Your task to perform on an android device: Clear the shopping cart on bestbuy. Image 0: 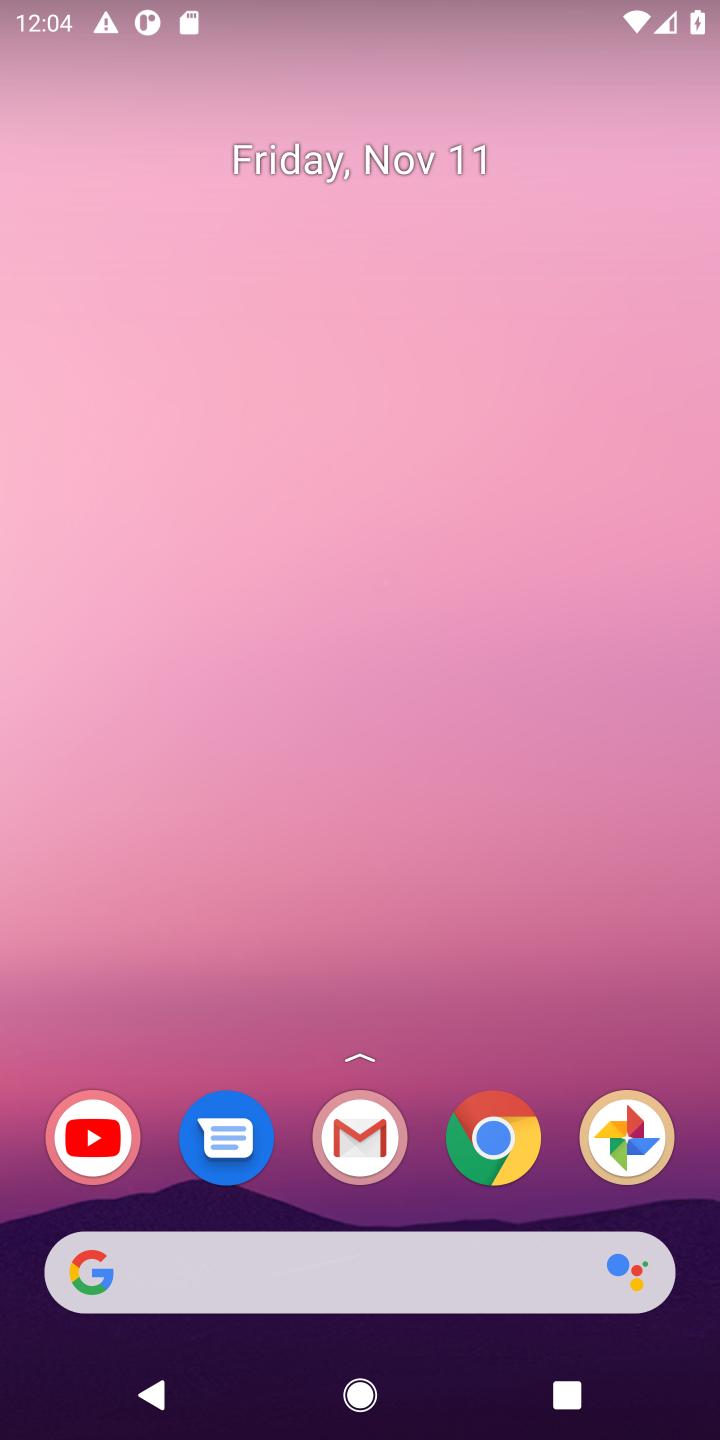
Step 0: click (485, 1124)
Your task to perform on an android device: Clear the shopping cart on bestbuy. Image 1: 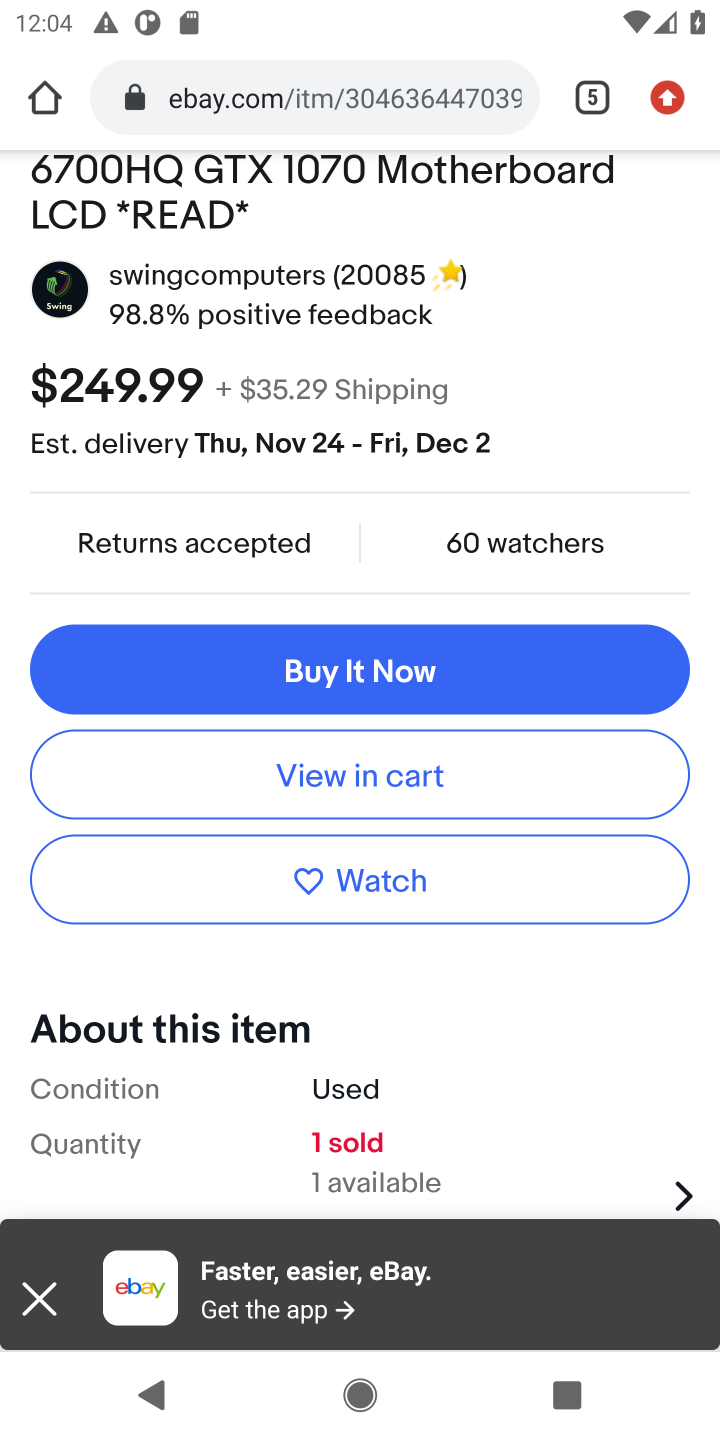
Step 1: click (580, 102)
Your task to perform on an android device: Clear the shopping cart on bestbuy. Image 2: 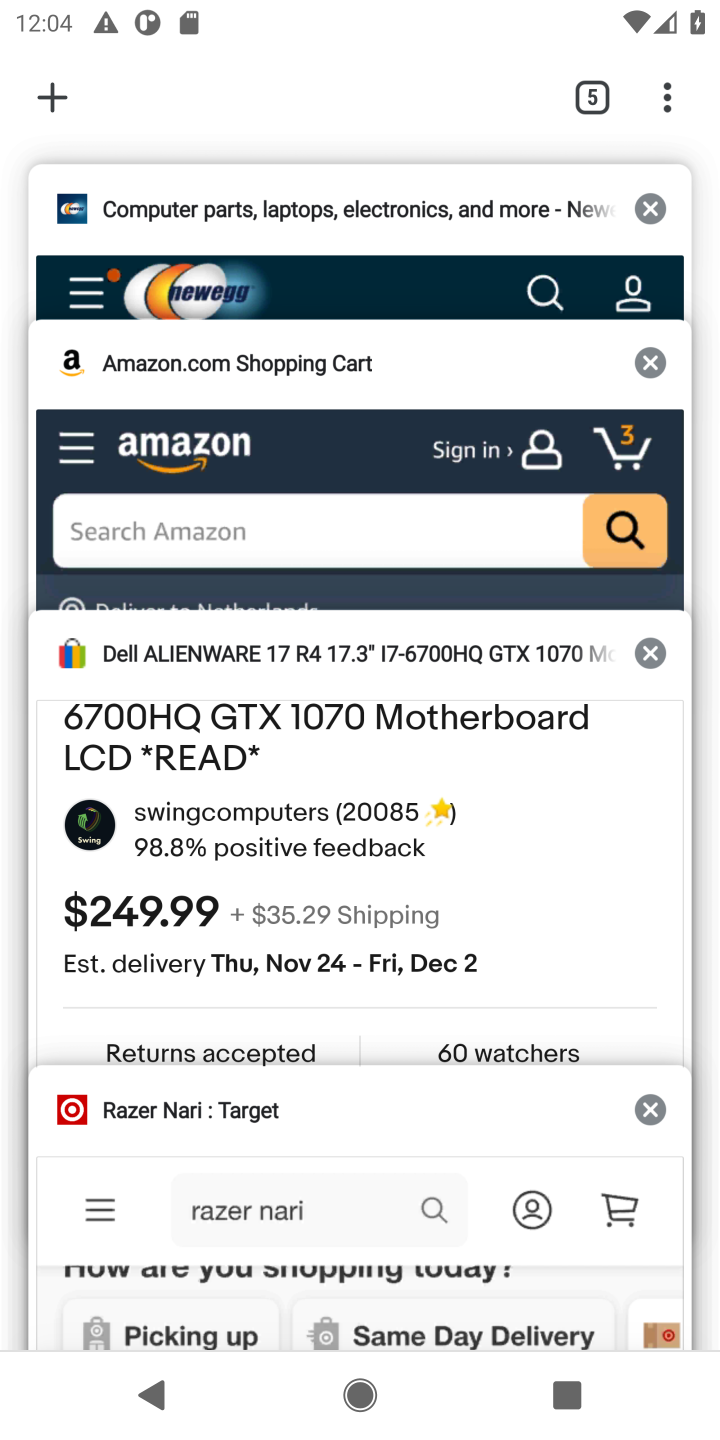
Step 2: click (42, 88)
Your task to perform on an android device: Clear the shopping cart on bestbuy. Image 3: 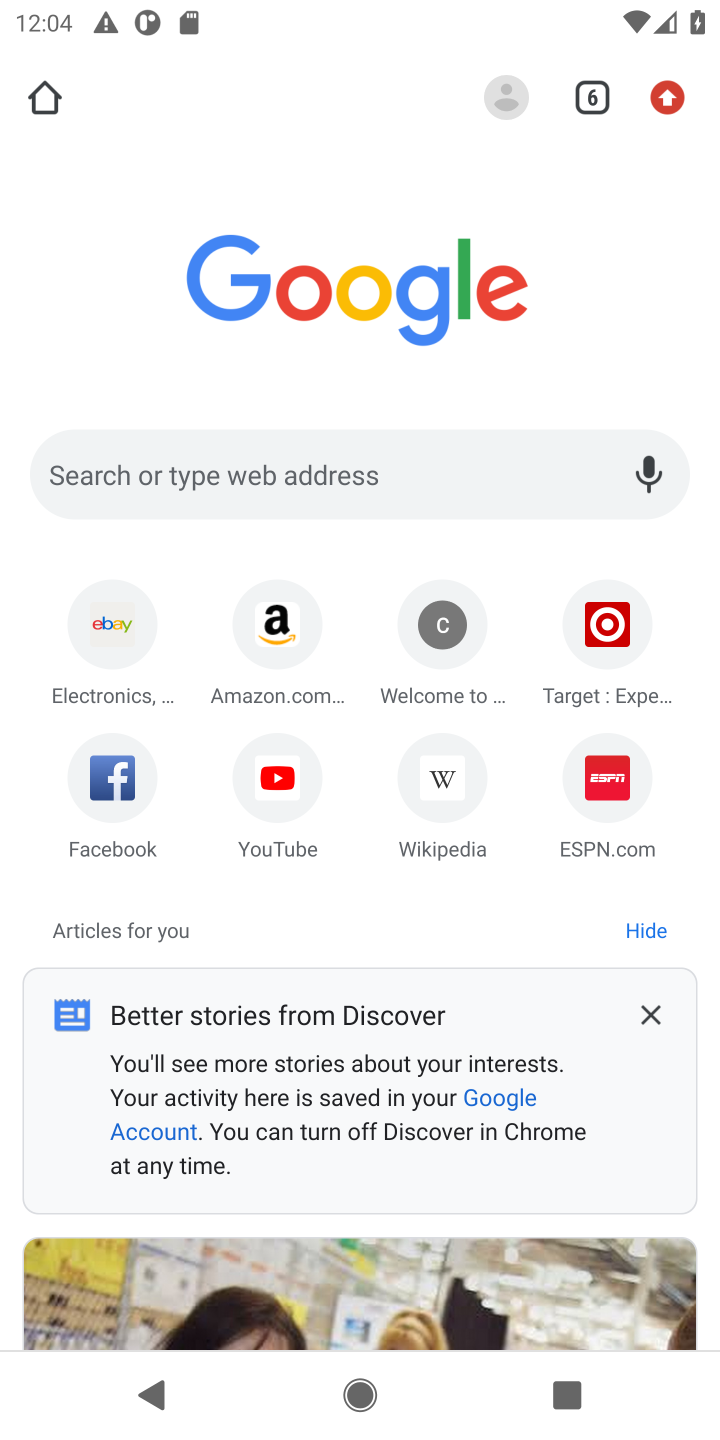
Step 3: click (240, 458)
Your task to perform on an android device: Clear the shopping cart on bestbuy. Image 4: 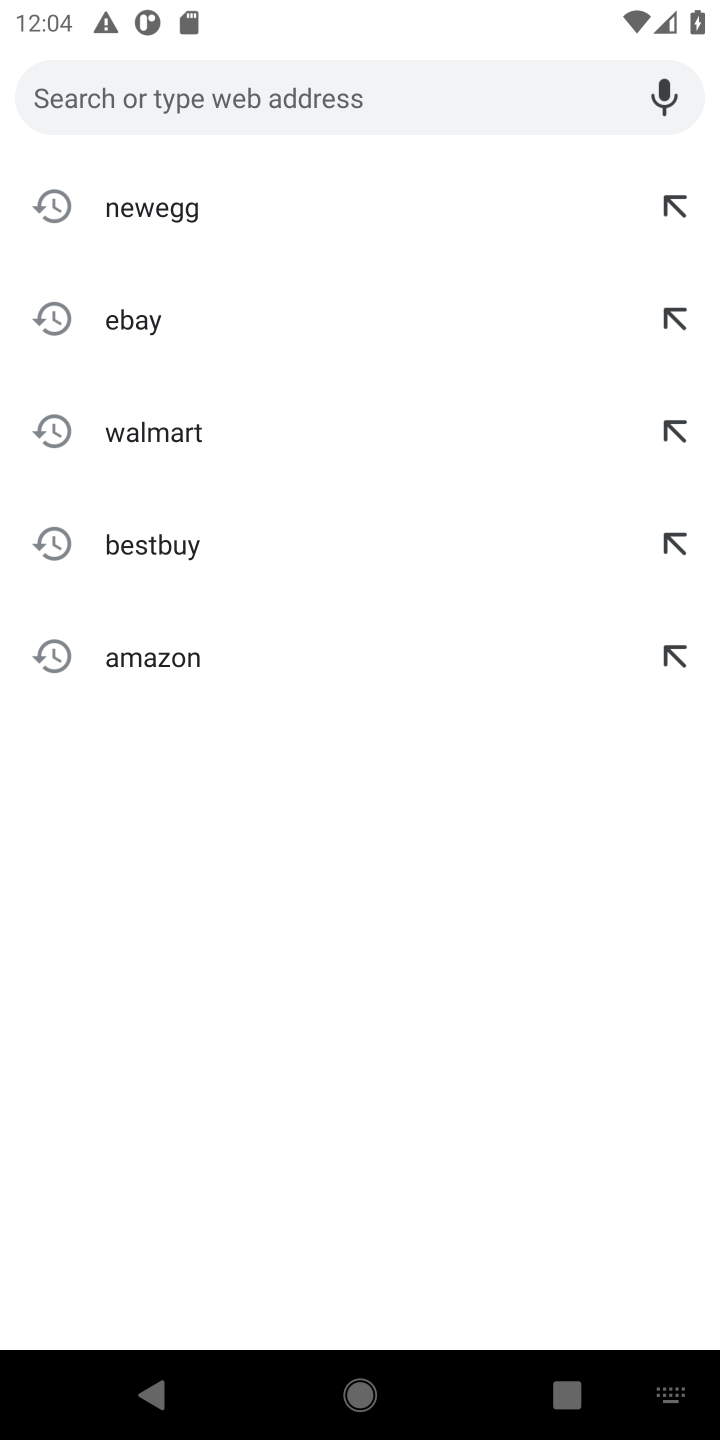
Step 4: click (141, 553)
Your task to perform on an android device: Clear the shopping cart on bestbuy. Image 5: 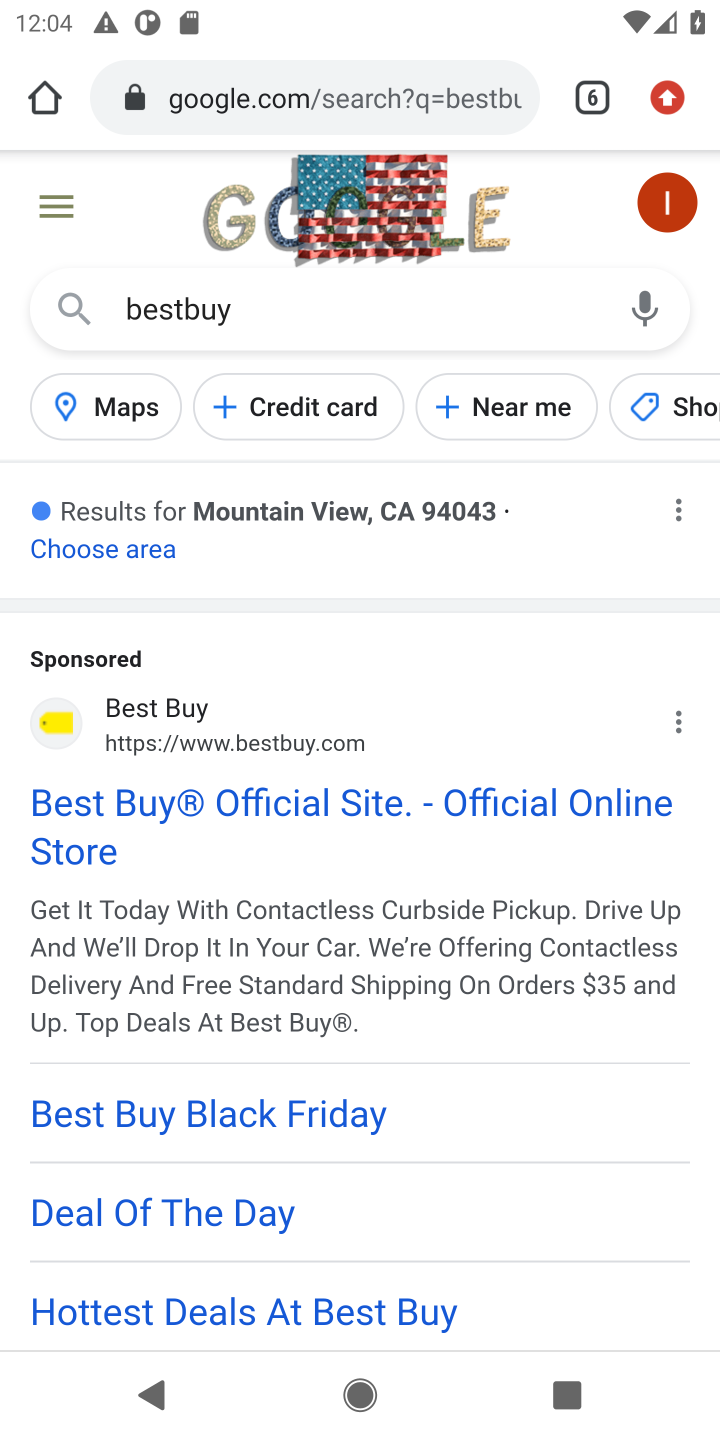
Step 5: click (230, 814)
Your task to perform on an android device: Clear the shopping cart on bestbuy. Image 6: 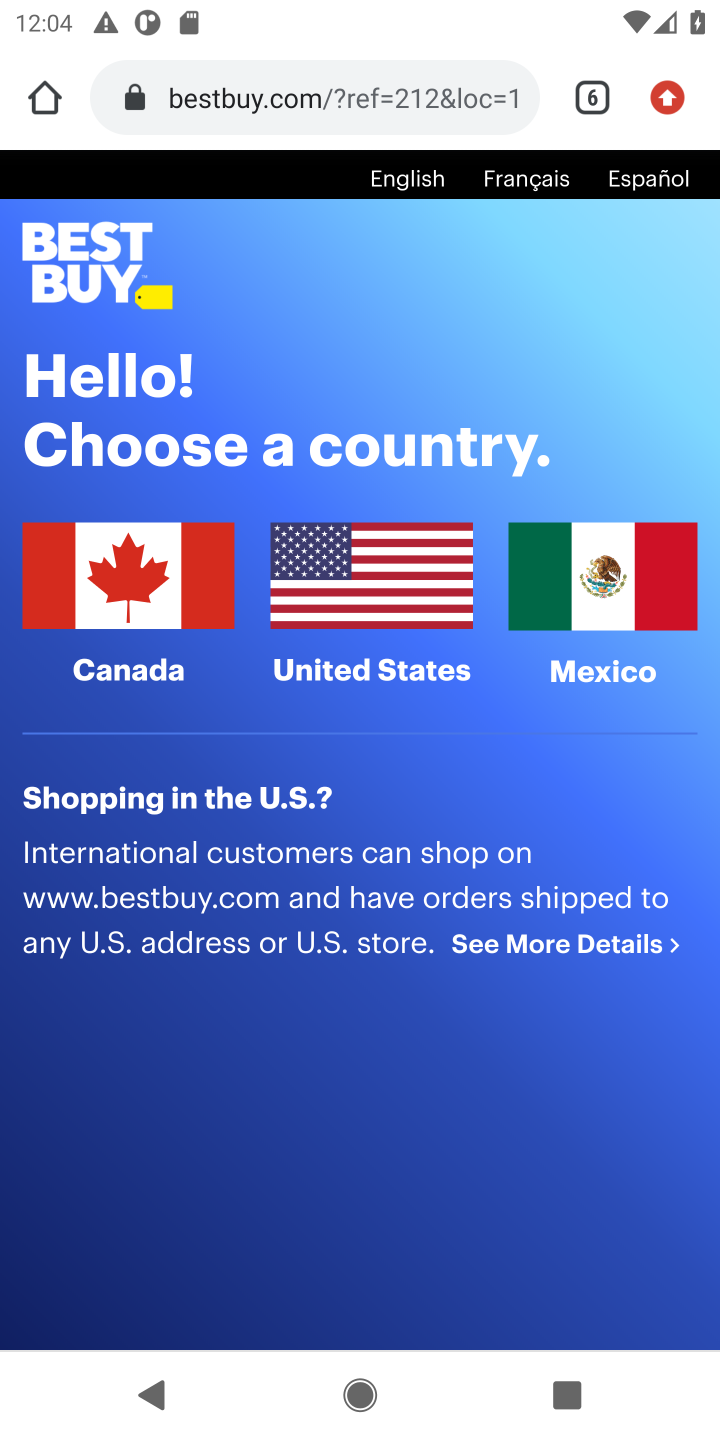
Step 6: click (342, 574)
Your task to perform on an android device: Clear the shopping cart on bestbuy. Image 7: 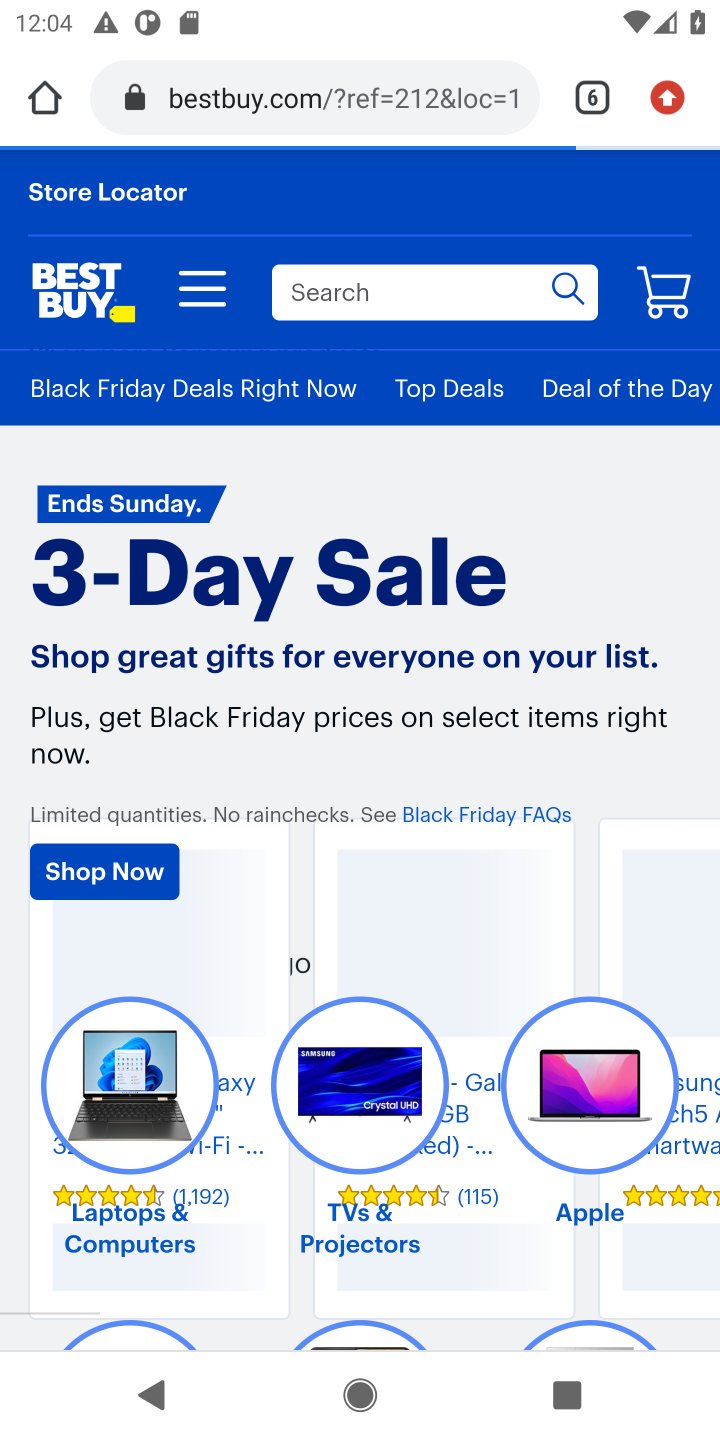
Step 7: click (667, 288)
Your task to perform on an android device: Clear the shopping cart on bestbuy. Image 8: 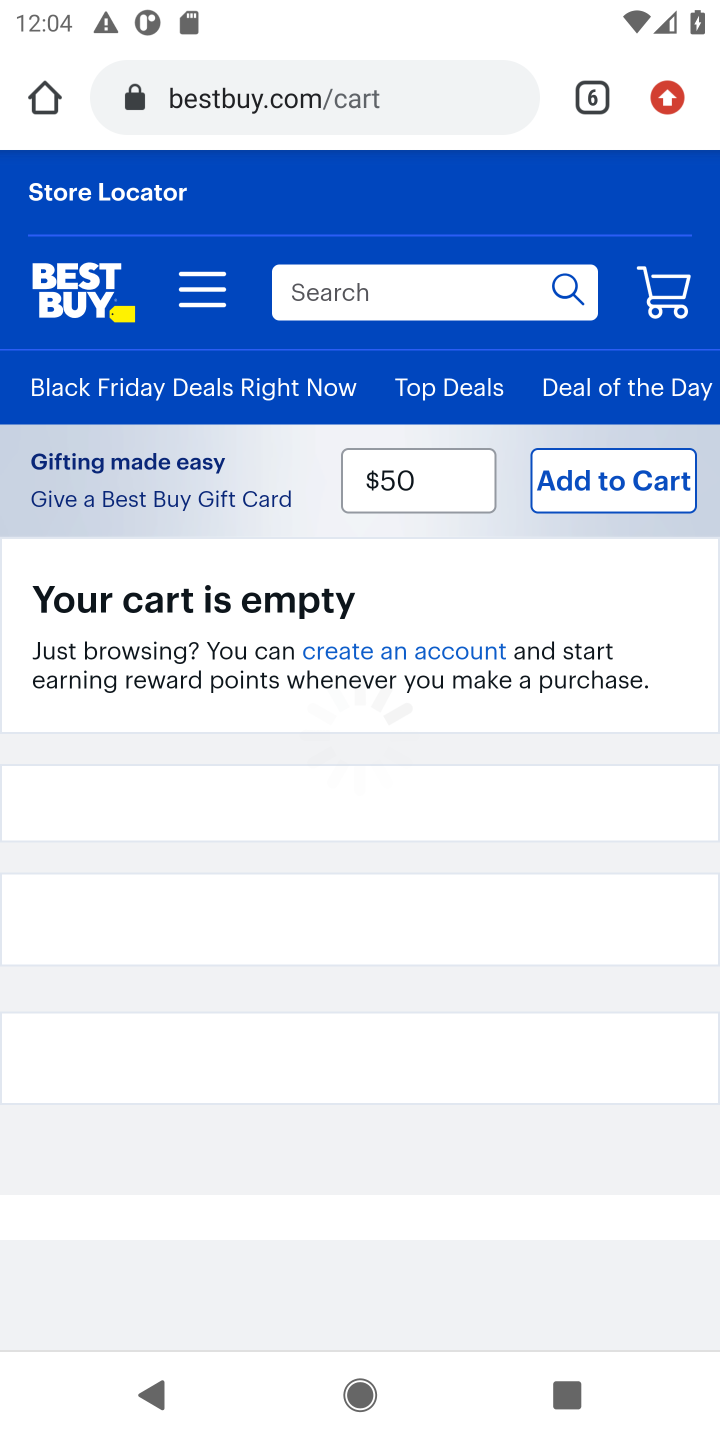
Step 8: task complete